Your task to perform on an android device: What's a good restaurant in Phoenix? Image 0: 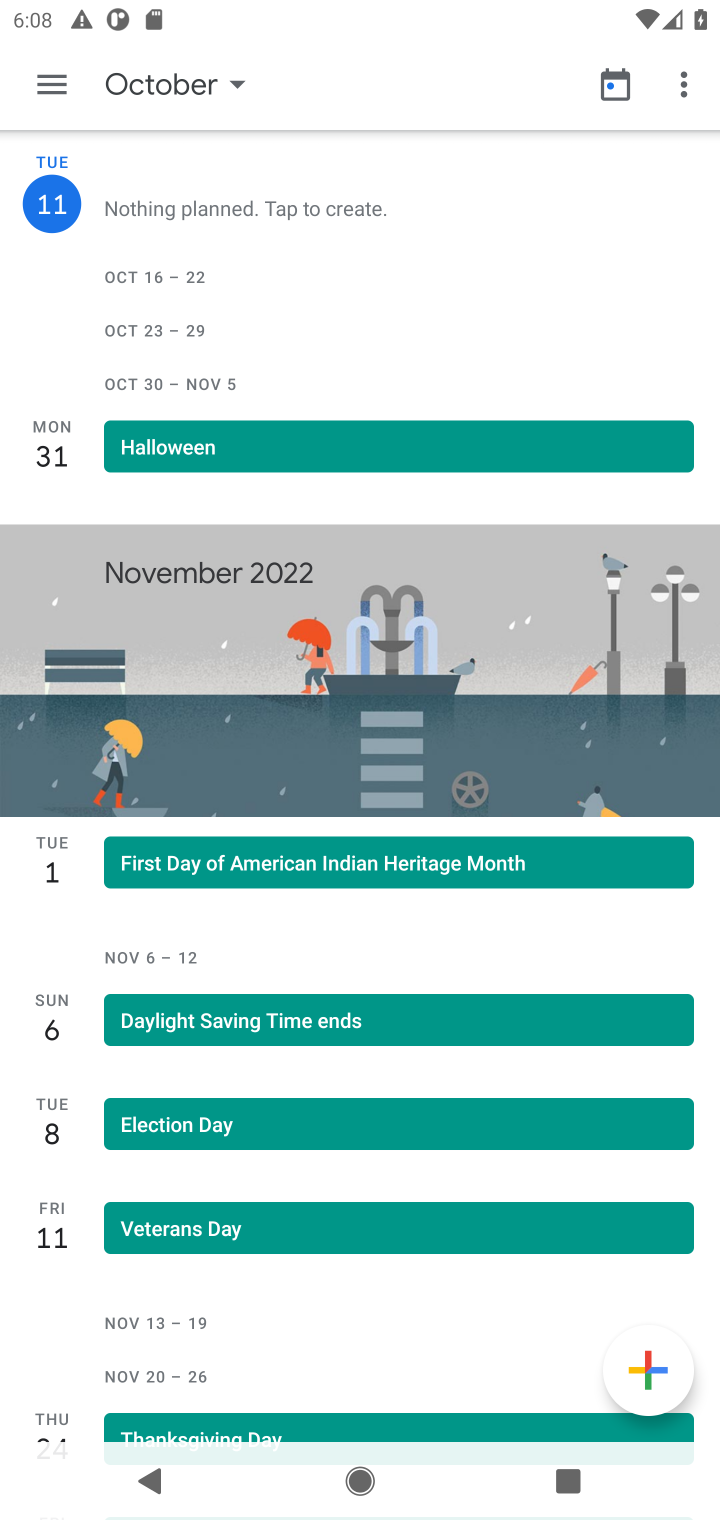
Step 0: press home button
Your task to perform on an android device: What's a good restaurant in Phoenix? Image 1: 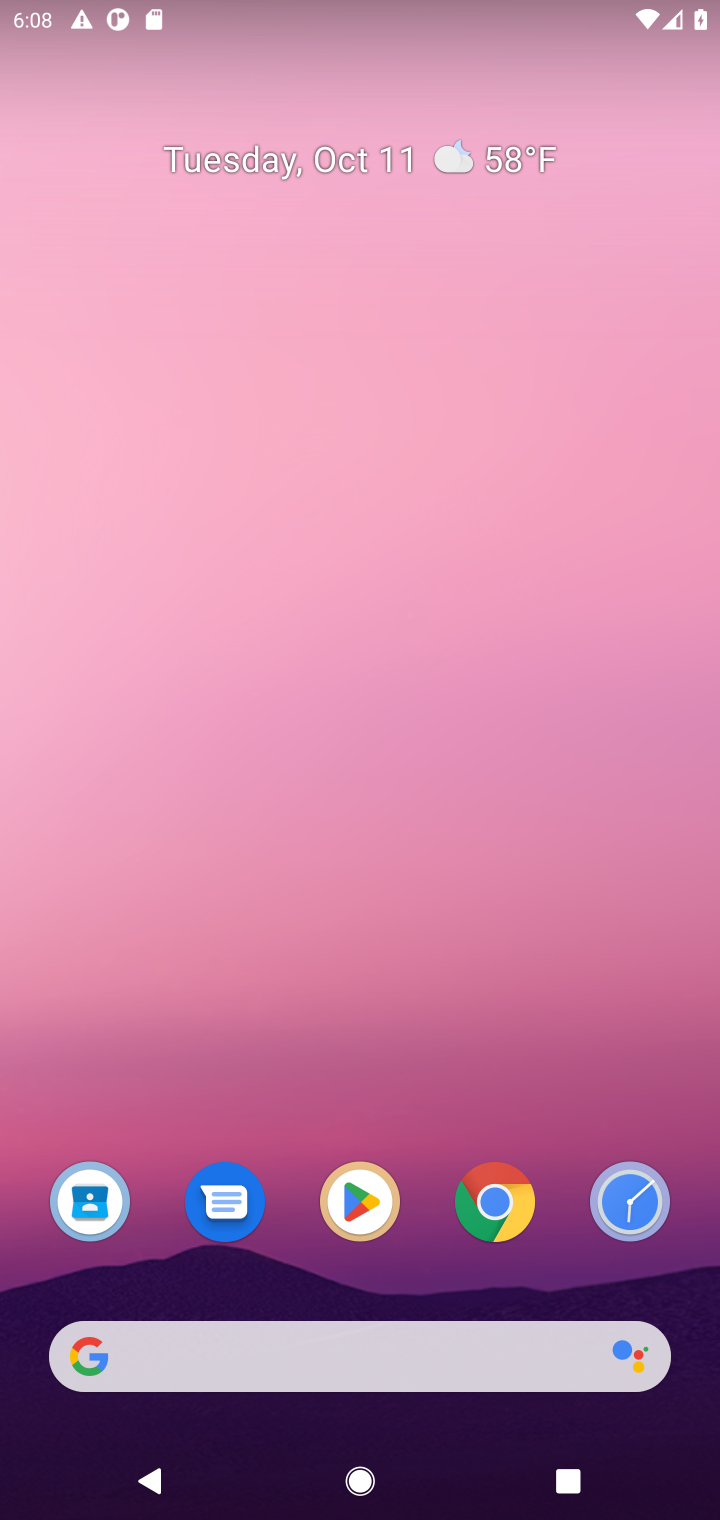
Step 1: drag from (530, 1061) to (441, 40)
Your task to perform on an android device: What's a good restaurant in Phoenix? Image 2: 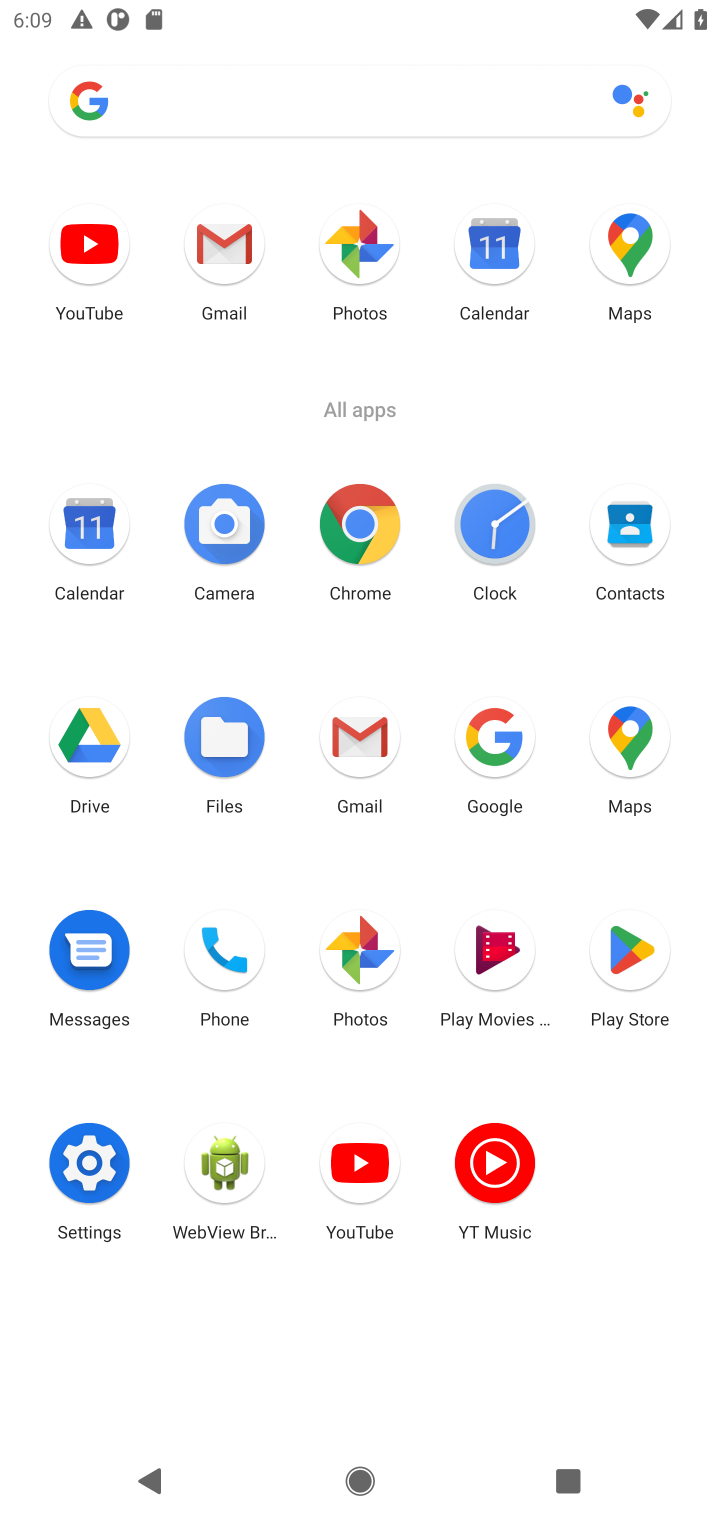
Step 2: click (370, 530)
Your task to perform on an android device: What's a good restaurant in Phoenix? Image 3: 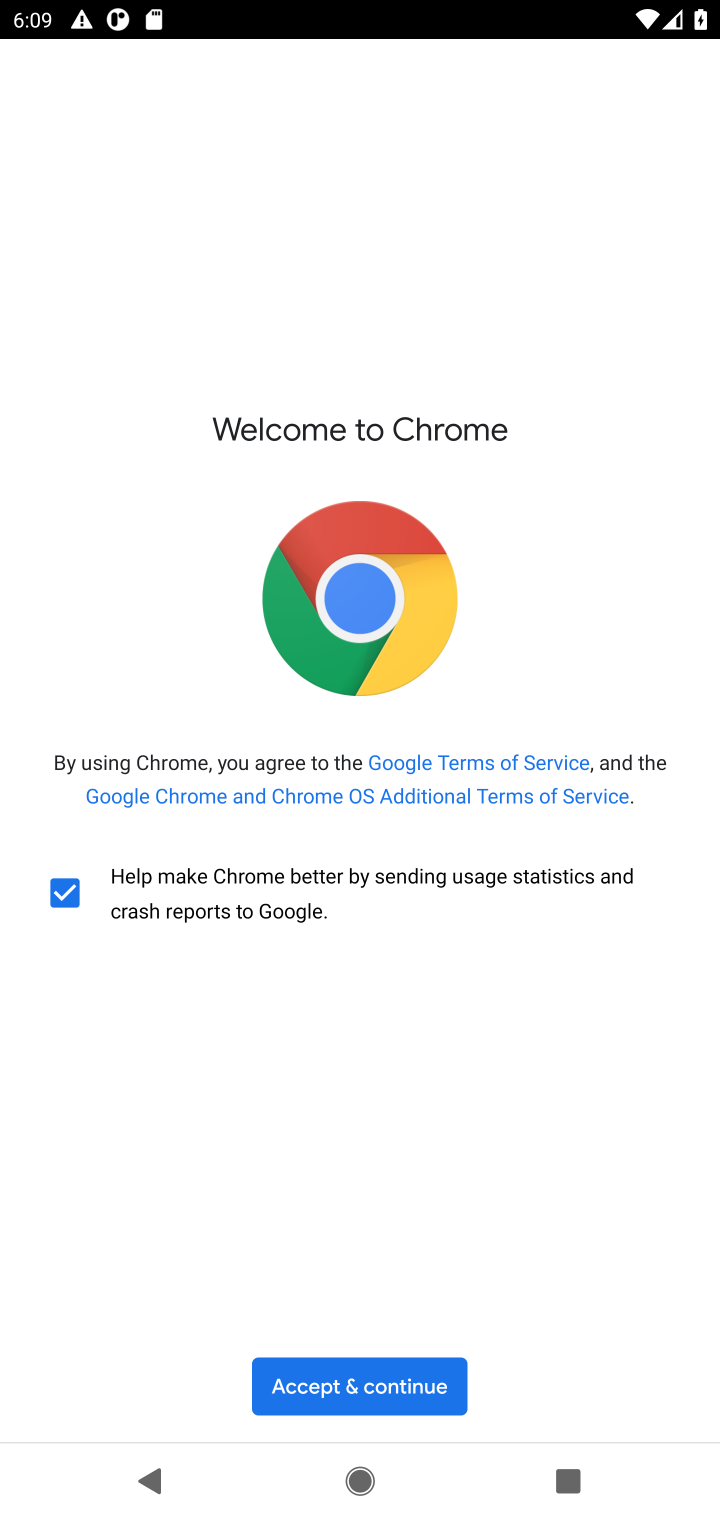
Step 3: click (349, 1398)
Your task to perform on an android device: What's a good restaurant in Phoenix? Image 4: 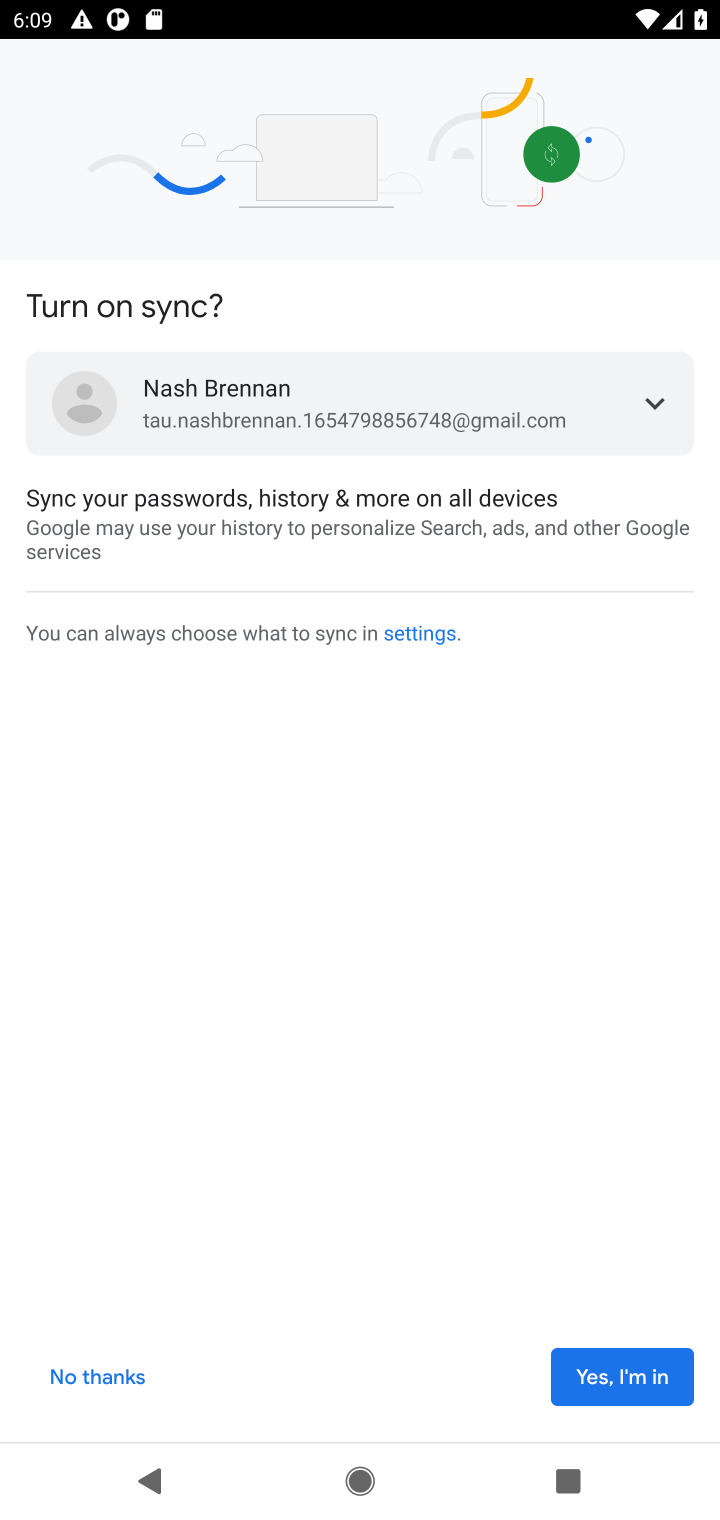
Step 4: click (669, 1398)
Your task to perform on an android device: What's a good restaurant in Phoenix? Image 5: 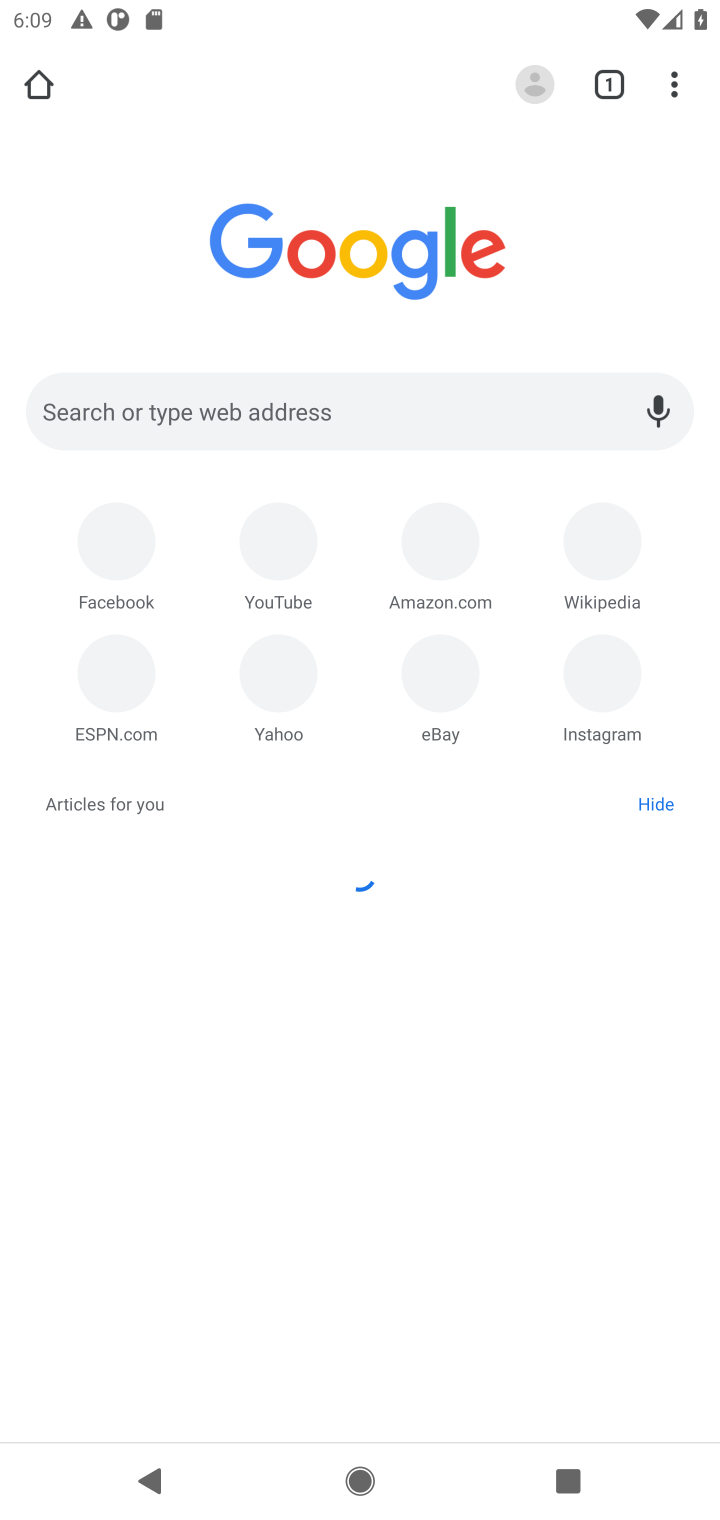
Step 5: click (569, 249)
Your task to perform on an android device: What's a good restaurant in Phoenix? Image 6: 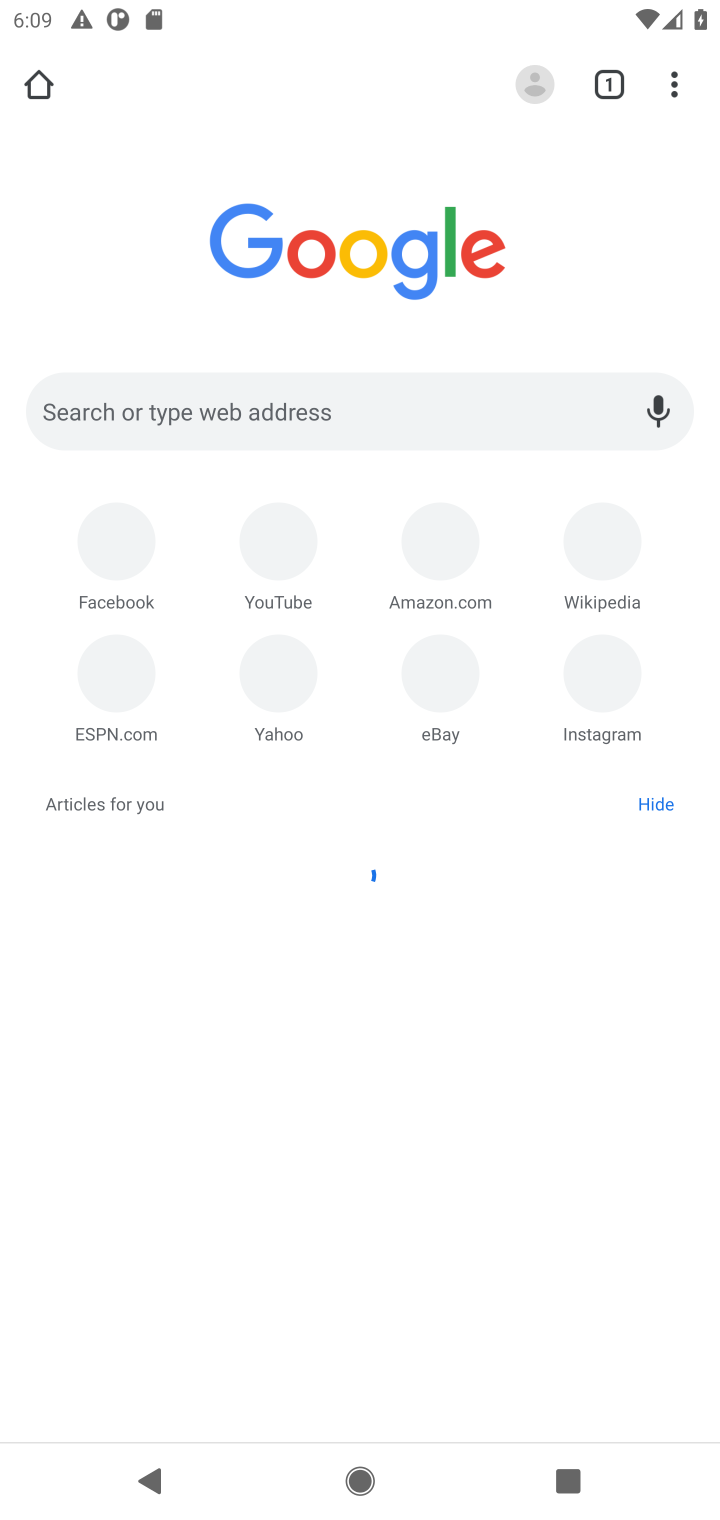
Step 6: click (234, 409)
Your task to perform on an android device: What's a good restaurant in Phoenix? Image 7: 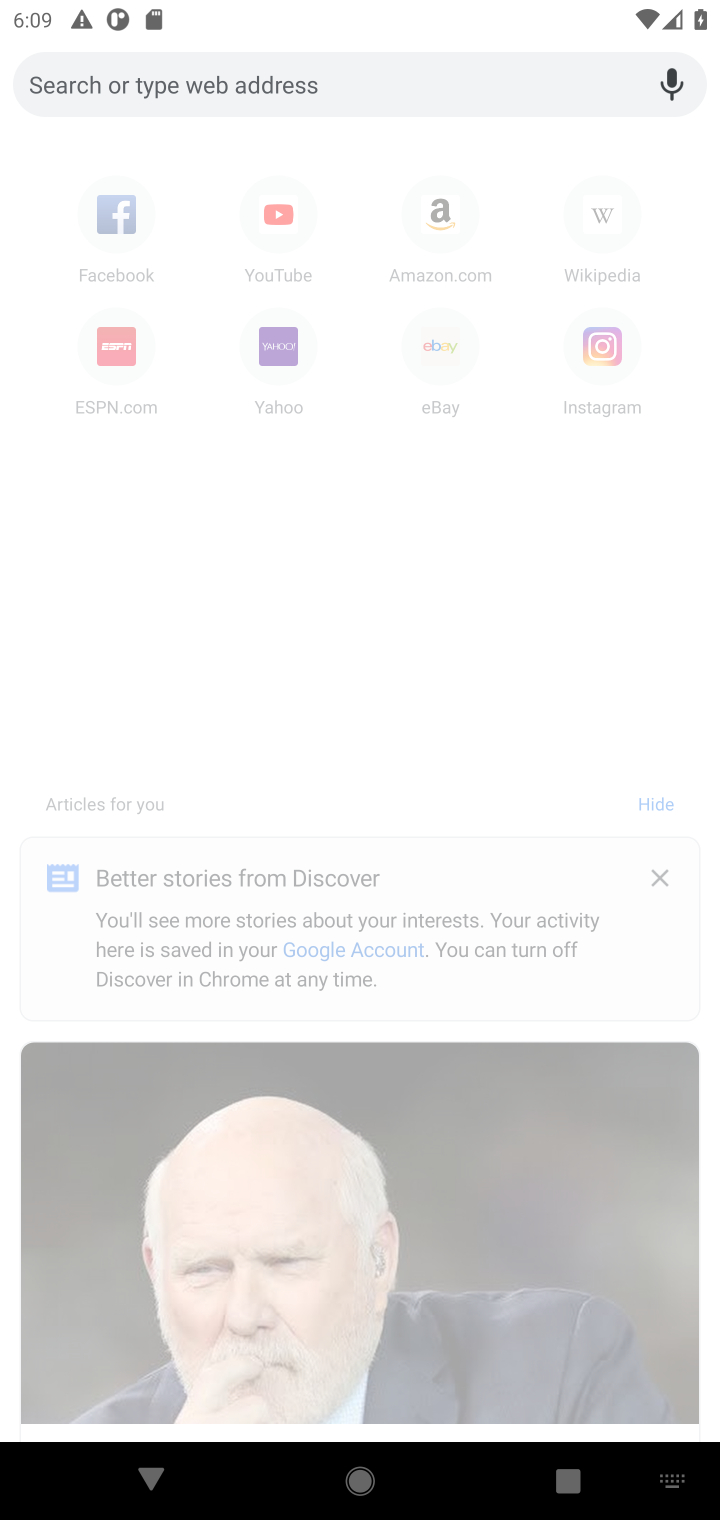
Step 7: type "good restaurant in phoenix"
Your task to perform on an android device: What's a good restaurant in Phoenix? Image 8: 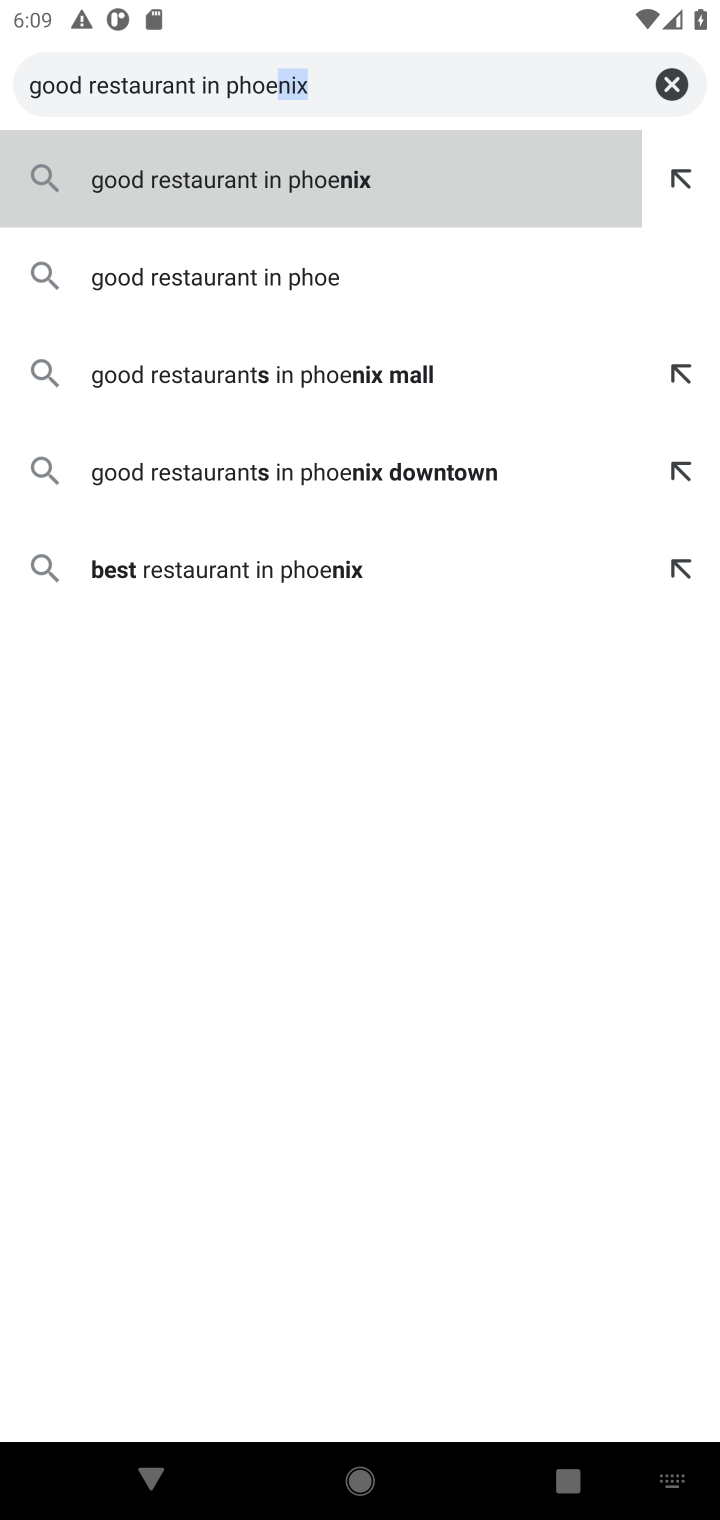
Step 8: click (380, 162)
Your task to perform on an android device: What's a good restaurant in Phoenix? Image 9: 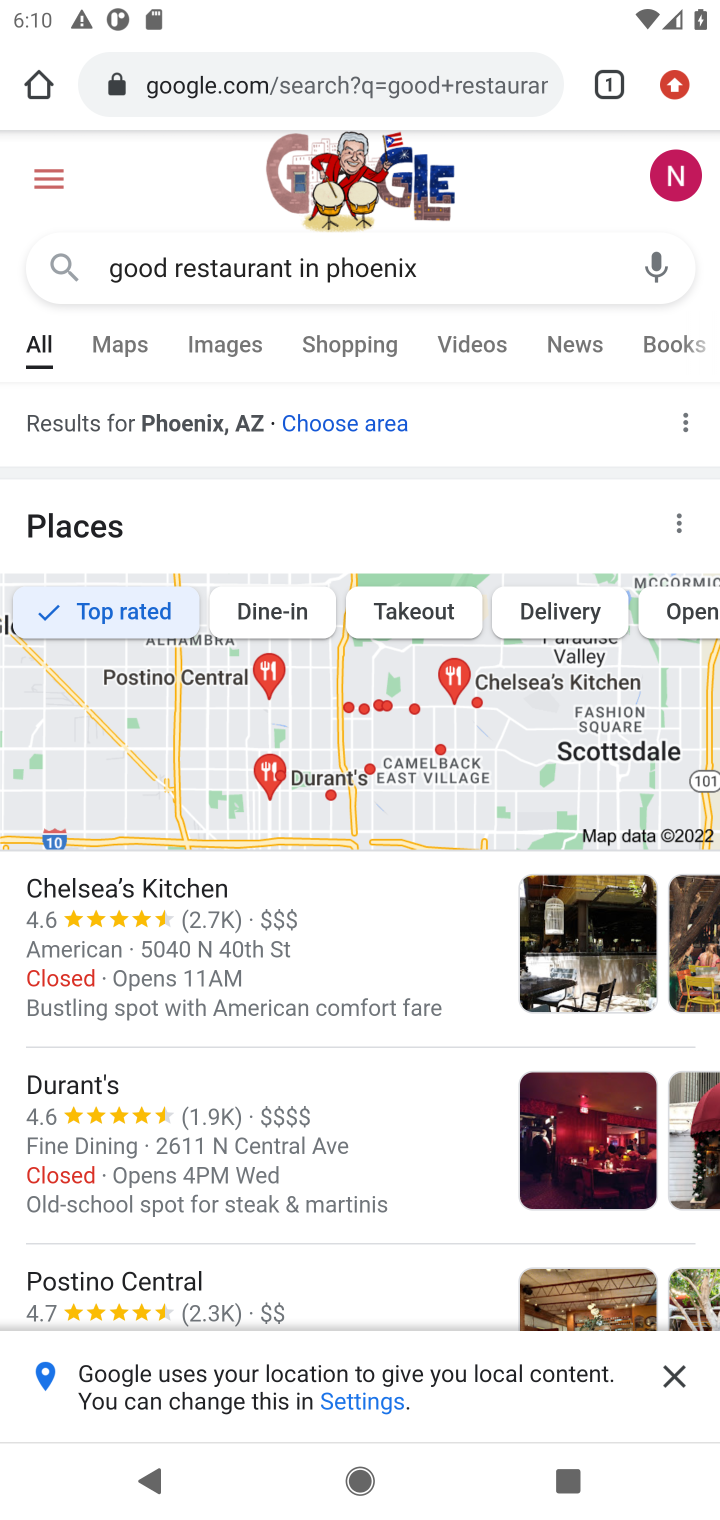
Step 9: task complete